Your task to perform on an android device: Set the phone to "Do not disturb". Image 0: 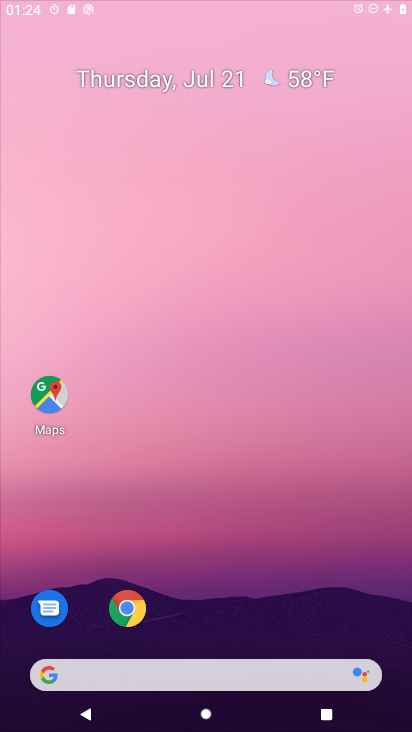
Step 0: press home button
Your task to perform on an android device: Set the phone to "Do not disturb". Image 1: 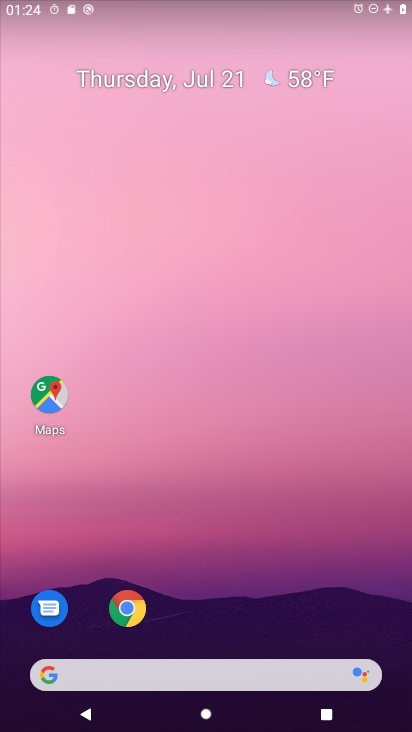
Step 1: task complete